Your task to perform on an android device: change the clock display to digital Image 0: 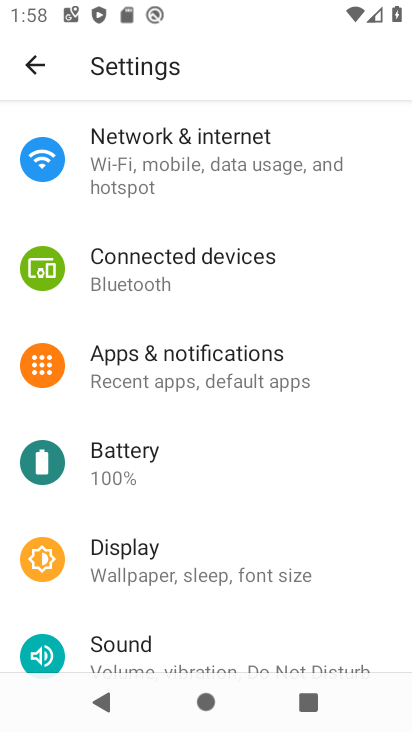
Step 0: press home button
Your task to perform on an android device: change the clock display to digital Image 1: 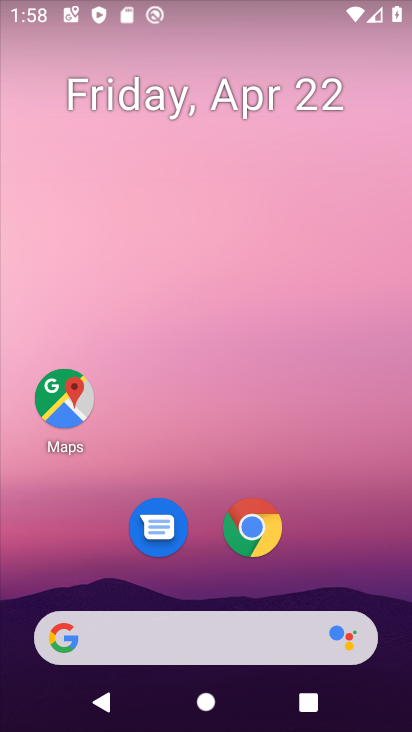
Step 1: drag from (343, 529) to (364, 120)
Your task to perform on an android device: change the clock display to digital Image 2: 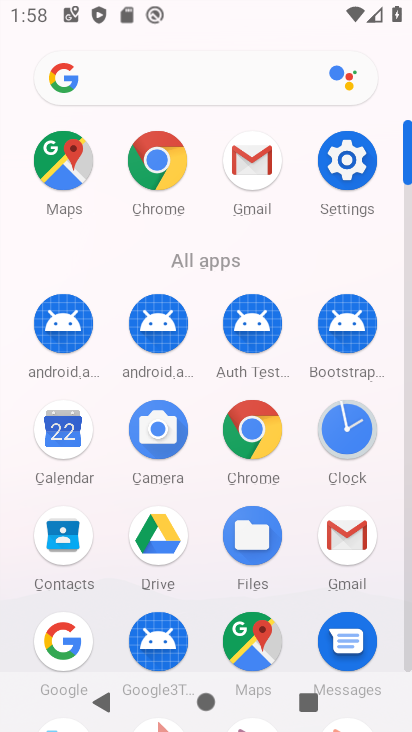
Step 2: click (345, 425)
Your task to perform on an android device: change the clock display to digital Image 3: 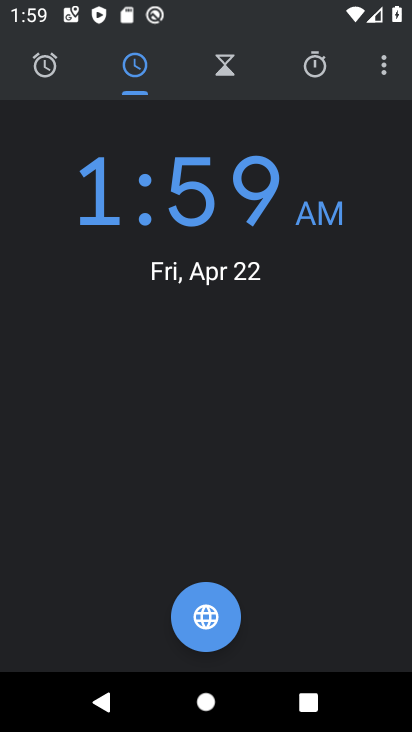
Step 3: click (384, 75)
Your task to perform on an android device: change the clock display to digital Image 4: 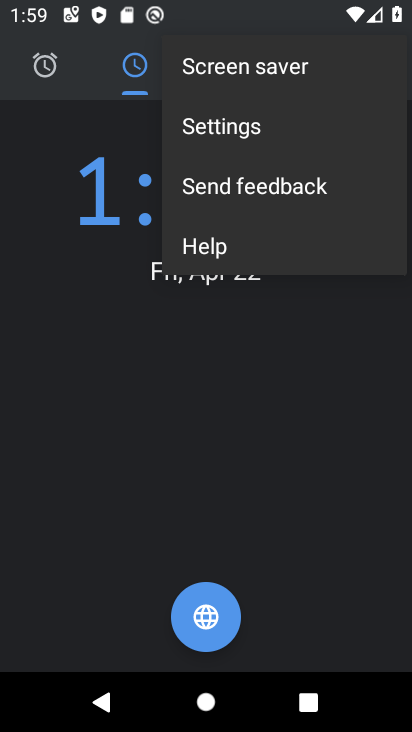
Step 4: click (238, 120)
Your task to perform on an android device: change the clock display to digital Image 5: 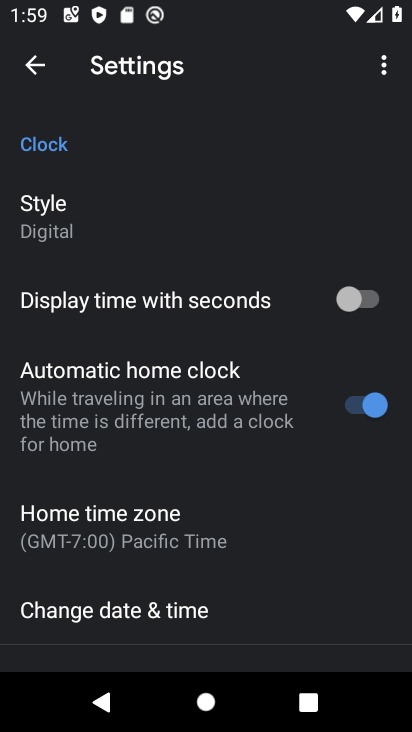
Step 5: click (62, 212)
Your task to perform on an android device: change the clock display to digital Image 6: 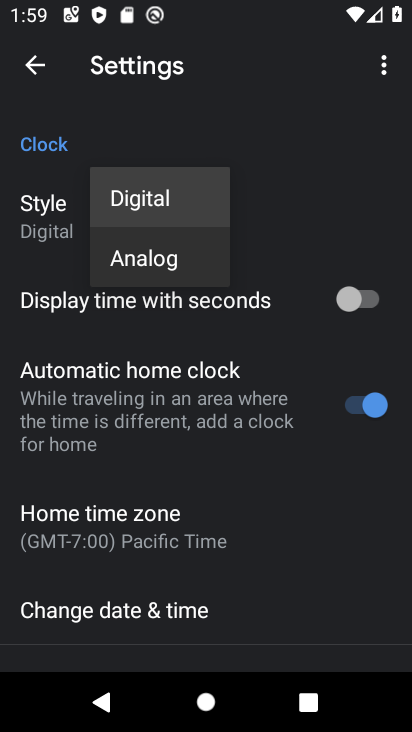
Step 6: click (181, 207)
Your task to perform on an android device: change the clock display to digital Image 7: 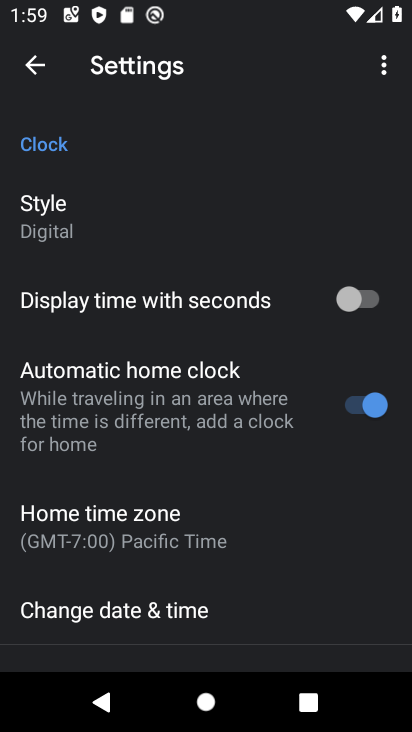
Step 7: task complete